Your task to perform on an android device: show emergency info Image 0: 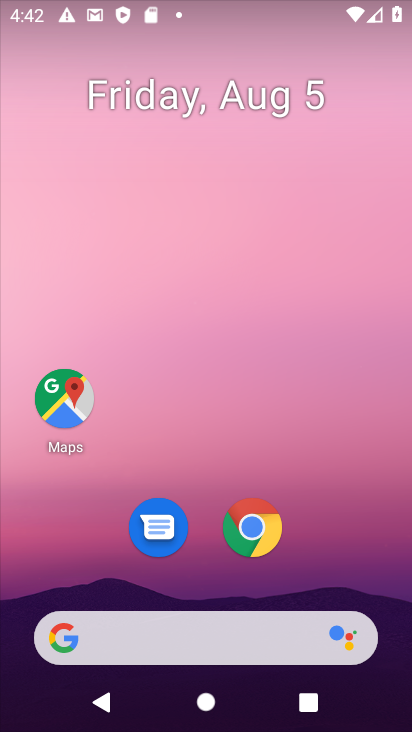
Step 0: drag from (218, 477) to (295, 145)
Your task to perform on an android device: show emergency info Image 1: 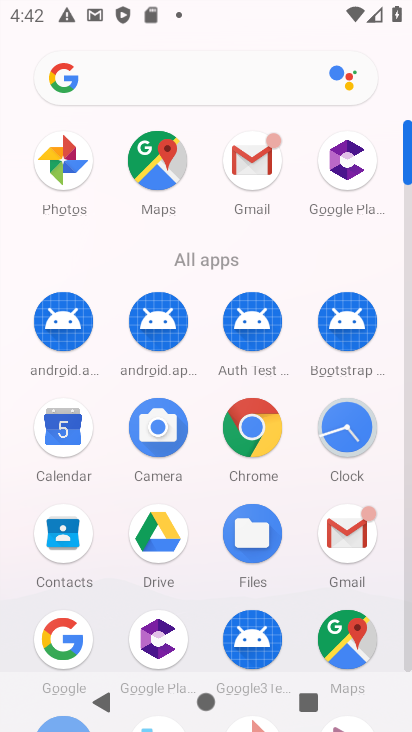
Step 1: drag from (207, 581) to (206, 487)
Your task to perform on an android device: show emergency info Image 2: 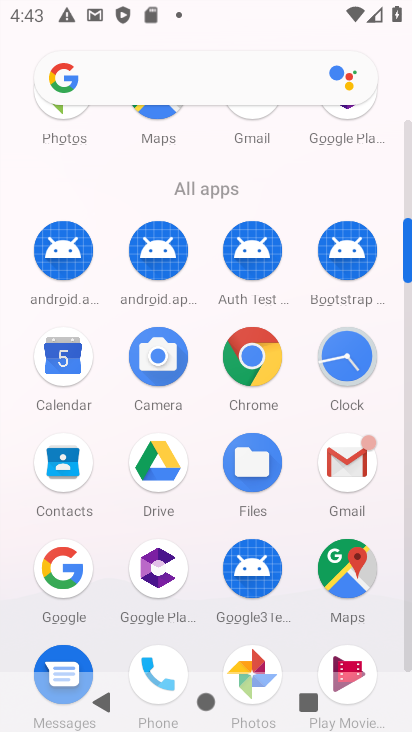
Step 2: drag from (200, 509) to (195, 184)
Your task to perform on an android device: show emergency info Image 3: 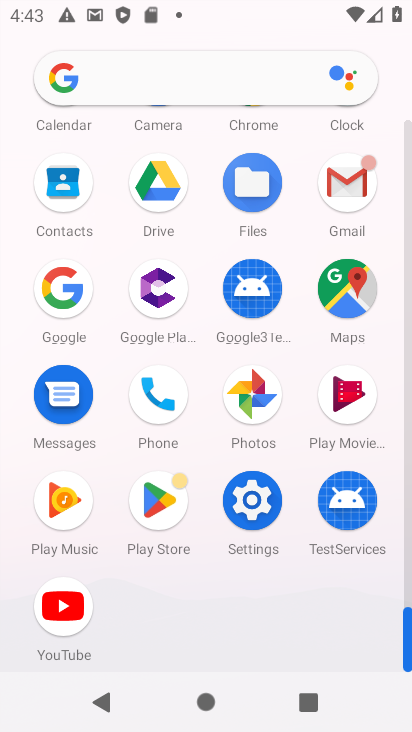
Step 3: click (251, 518)
Your task to perform on an android device: show emergency info Image 4: 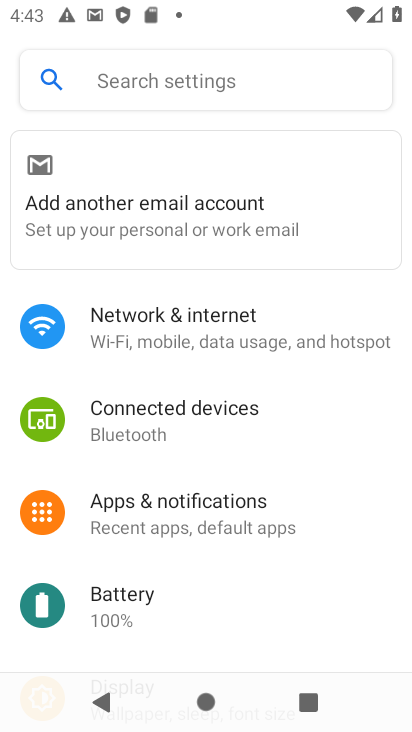
Step 4: drag from (198, 609) to (201, 435)
Your task to perform on an android device: show emergency info Image 5: 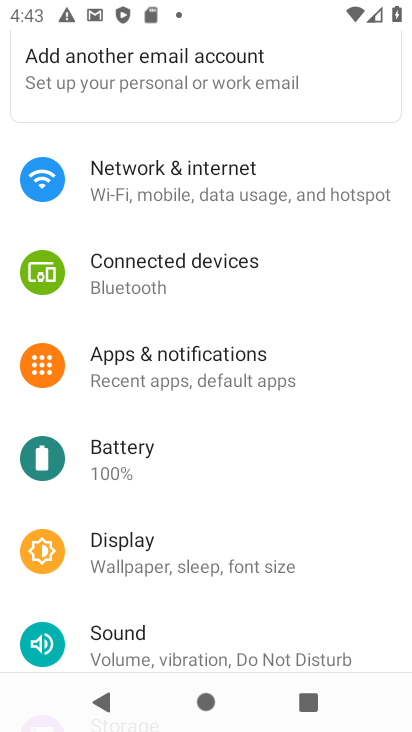
Step 5: drag from (194, 636) to (253, 115)
Your task to perform on an android device: show emergency info Image 6: 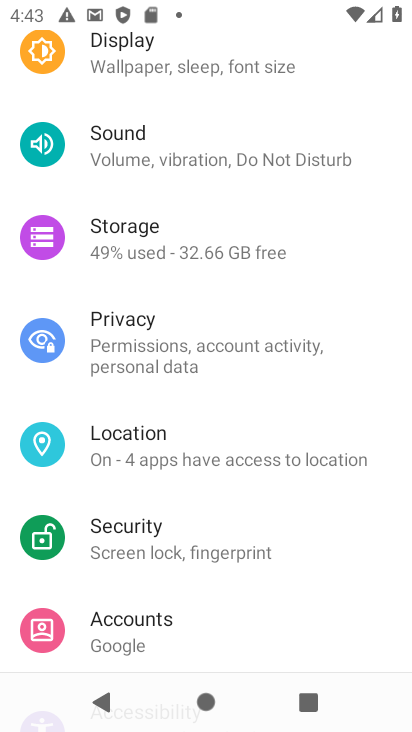
Step 6: drag from (208, 588) to (245, 41)
Your task to perform on an android device: show emergency info Image 7: 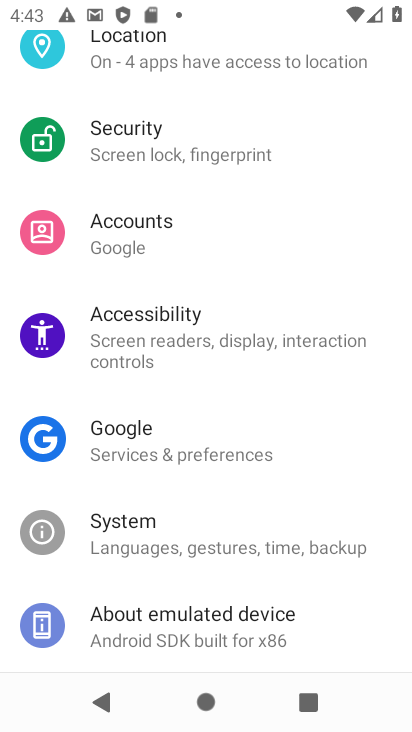
Step 7: drag from (176, 602) to (221, 286)
Your task to perform on an android device: show emergency info Image 8: 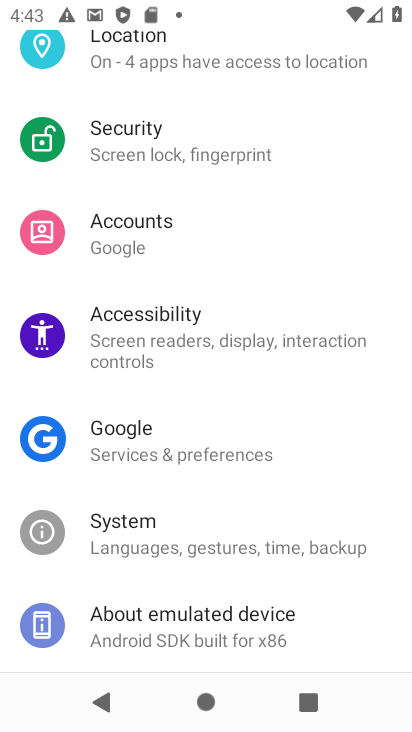
Step 8: click (162, 623)
Your task to perform on an android device: show emergency info Image 9: 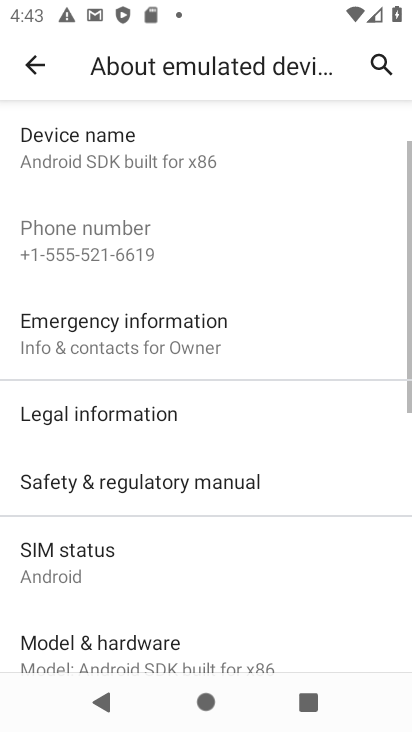
Step 9: drag from (172, 568) to (138, 310)
Your task to perform on an android device: show emergency info Image 10: 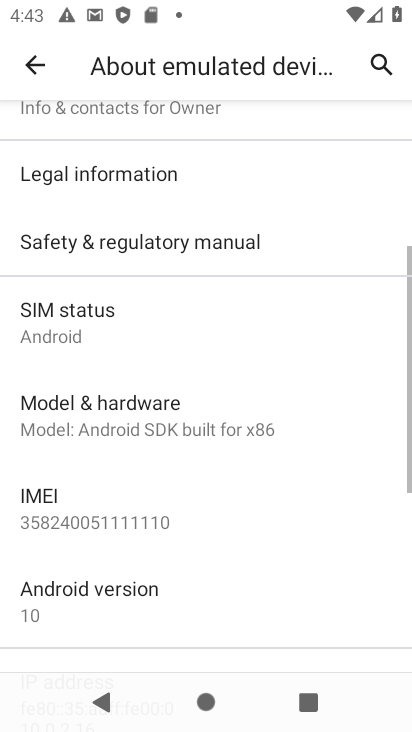
Step 10: drag from (221, 300) to (228, 685)
Your task to perform on an android device: show emergency info Image 11: 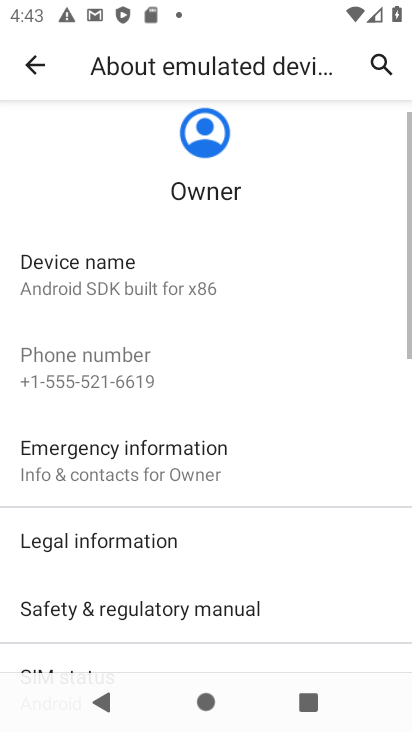
Step 11: click (138, 447)
Your task to perform on an android device: show emergency info Image 12: 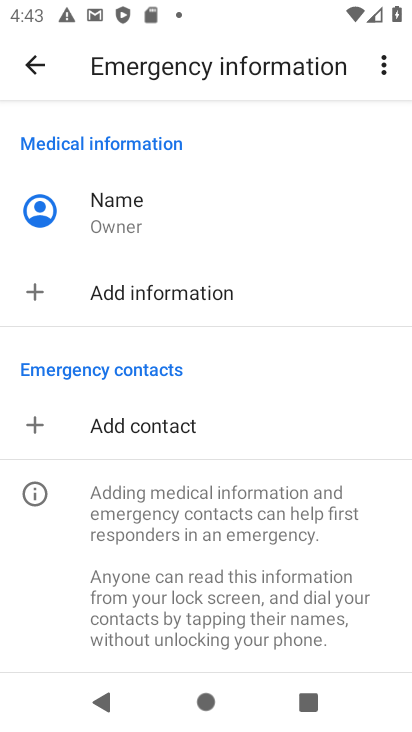
Step 12: task complete